Your task to perform on an android device: What's on my calendar tomorrow? Image 0: 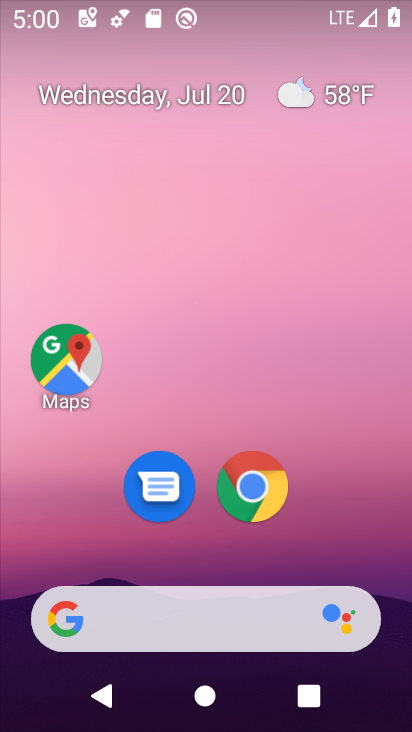
Step 0: drag from (101, 547) to (197, 21)
Your task to perform on an android device: What's on my calendar tomorrow? Image 1: 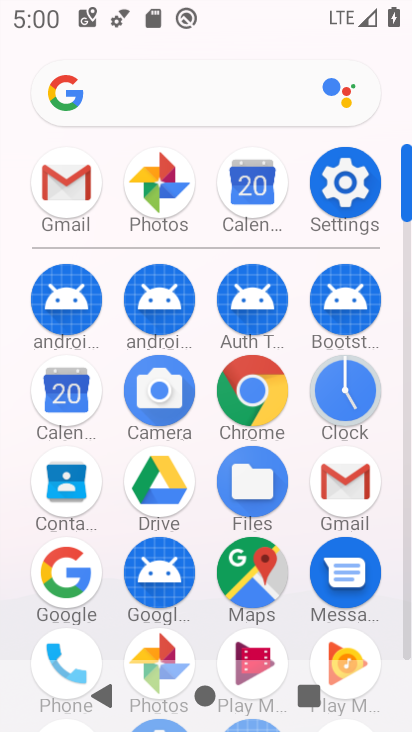
Step 1: click (249, 196)
Your task to perform on an android device: What's on my calendar tomorrow? Image 2: 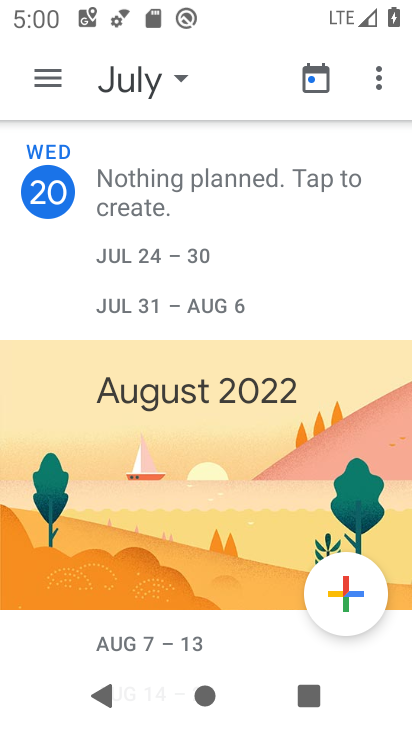
Step 2: task complete